Your task to perform on an android device: Open calendar and show me the third week of next month Image 0: 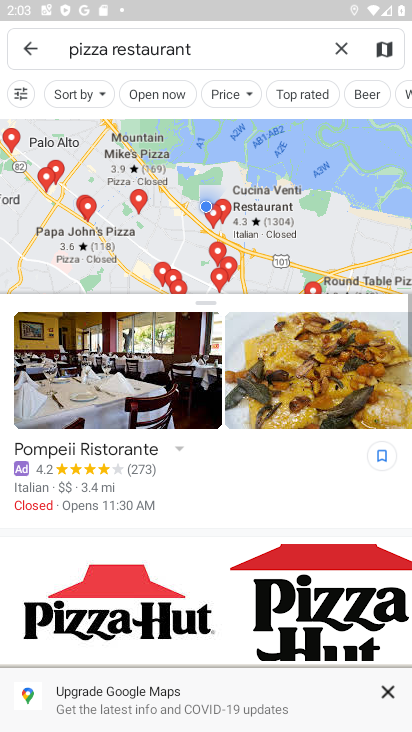
Step 0: press home button
Your task to perform on an android device: Open calendar and show me the third week of next month Image 1: 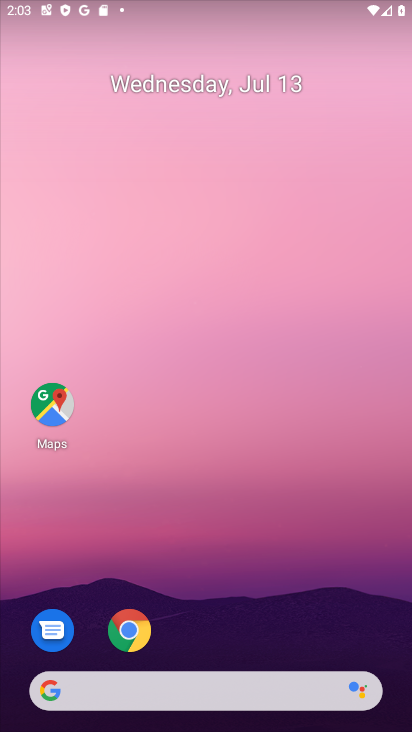
Step 1: drag from (211, 568) to (247, 101)
Your task to perform on an android device: Open calendar and show me the third week of next month Image 2: 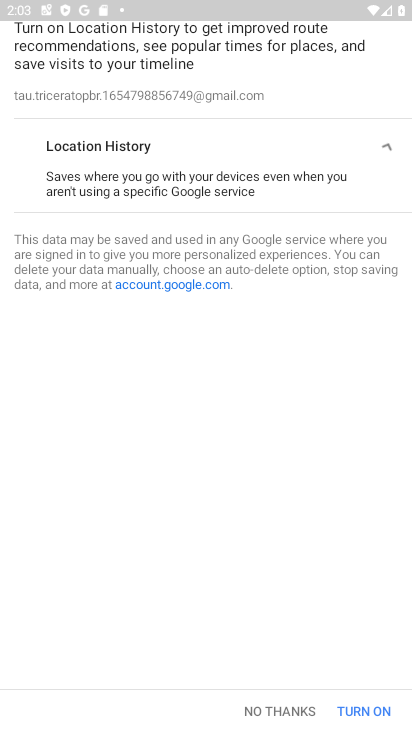
Step 2: press home button
Your task to perform on an android device: Open calendar and show me the third week of next month Image 3: 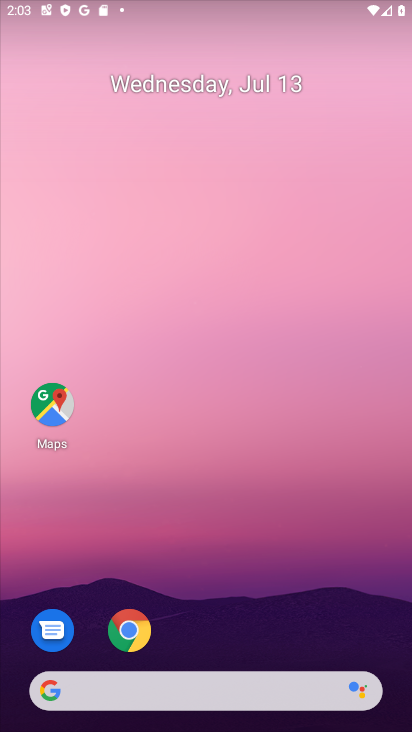
Step 3: drag from (189, 578) to (209, 134)
Your task to perform on an android device: Open calendar and show me the third week of next month Image 4: 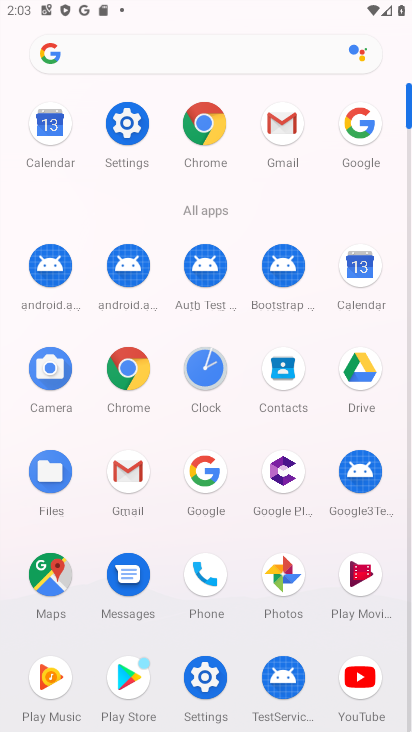
Step 4: click (355, 264)
Your task to perform on an android device: Open calendar and show me the third week of next month Image 5: 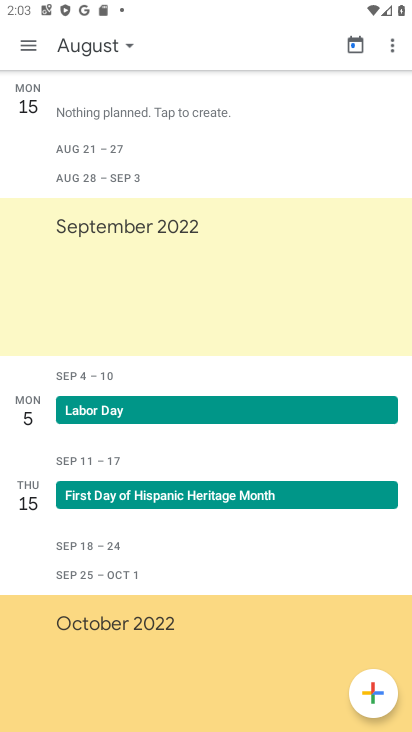
Step 5: click (117, 42)
Your task to perform on an android device: Open calendar and show me the third week of next month Image 6: 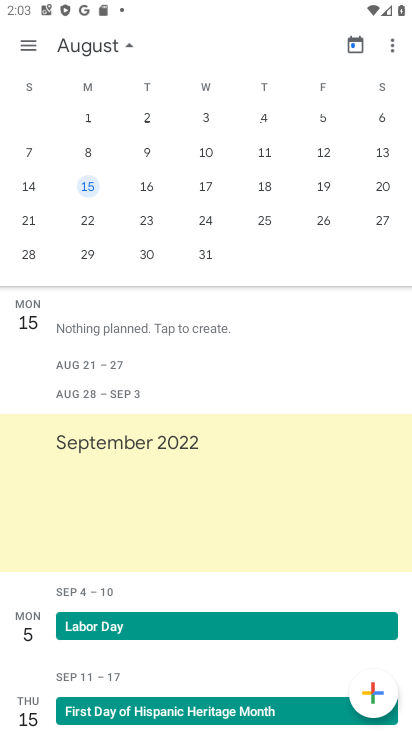
Step 6: click (145, 220)
Your task to perform on an android device: Open calendar and show me the third week of next month Image 7: 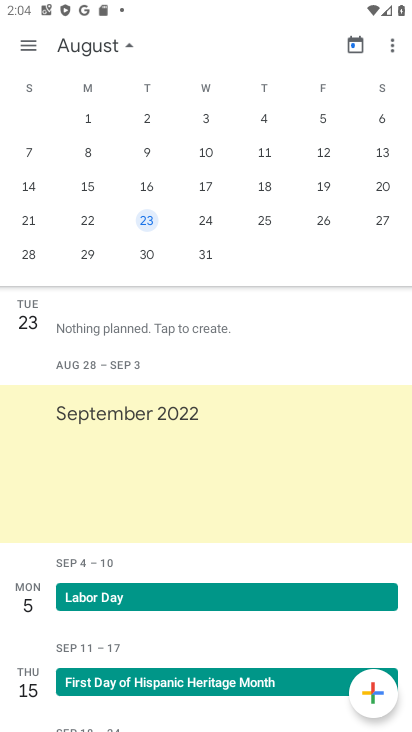
Step 7: task complete